Your task to perform on an android device: change keyboard looks Image 0: 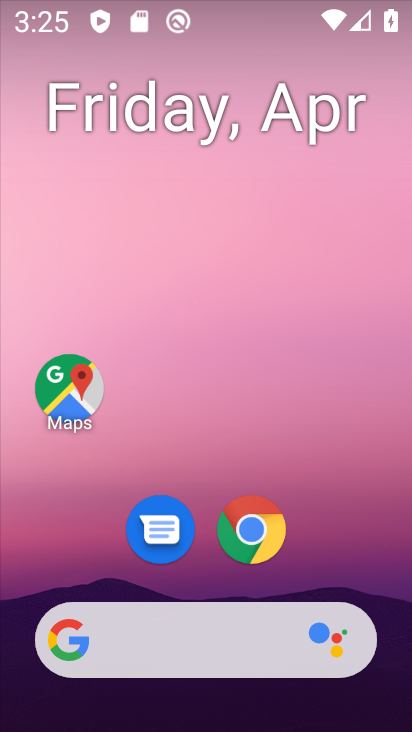
Step 0: drag from (321, 531) to (284, 37)
Your task to perform on an android device: change keyboard looks Image 1: 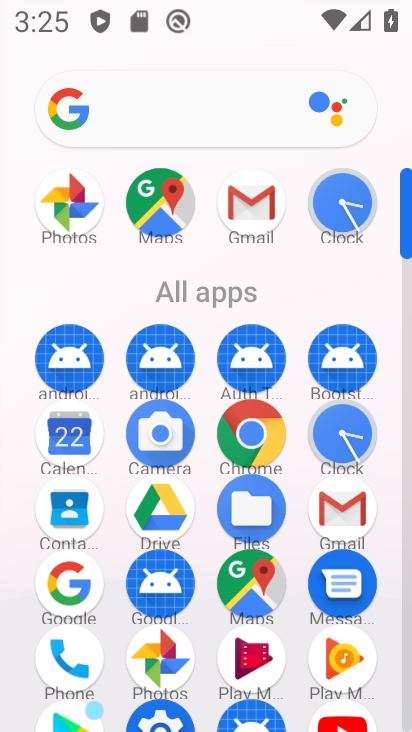
Step 1: drag from (220, 656) to (254, 319)
Your task to perform on an android device: change keyboard looks Image 2: 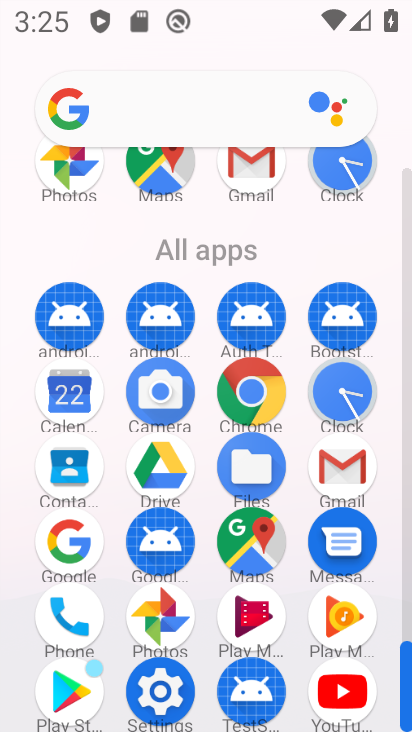
Step 2: click (159, 684)
Your task to perform on an android device: change keyboard looks Image 3: 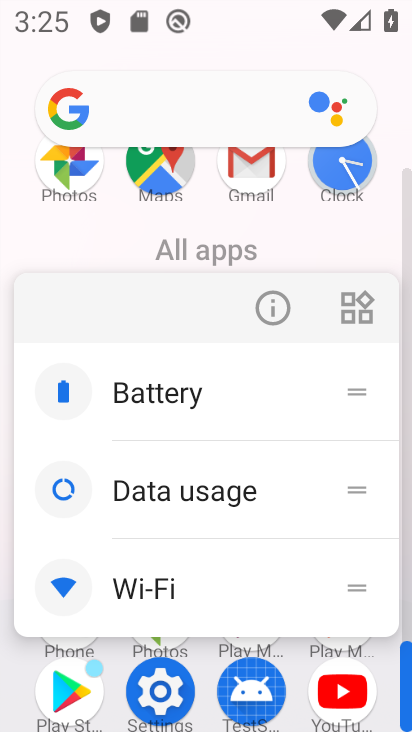
Step 3: click (154, 689)
Your task to perform on an android device: change keyboard looks Image 4: 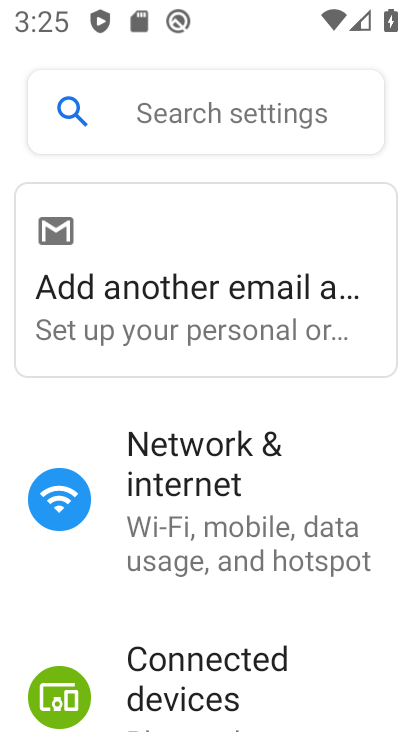
Step 4: drag from (268, 537) to (328, 70)
Your task to perform on an android device: change keyboard looks Image 5: 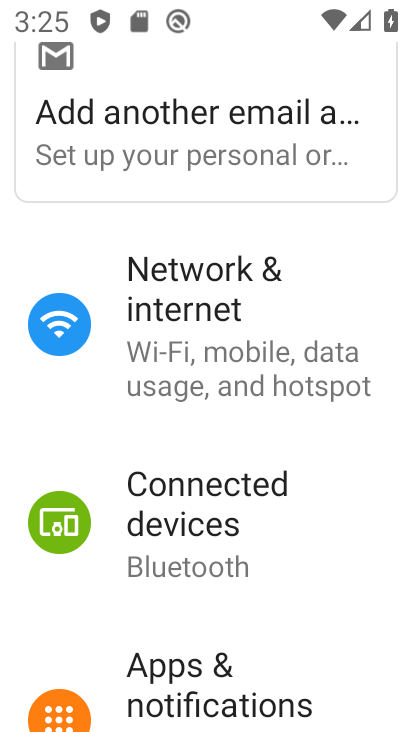
Step 5: drag from (278, 619) to (339, 139)
Your task to perform on an android device: change keyboard looks Image 6: 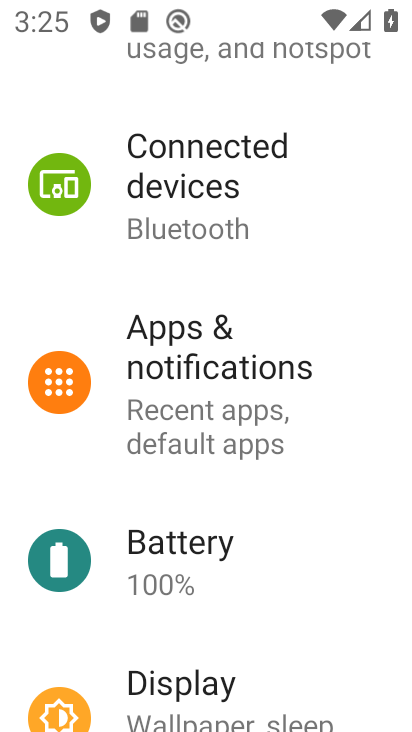
Step 6: drag from (255, 632) to (308, 219)
Your task to perform on an android device: change keyboard looks Image 7: 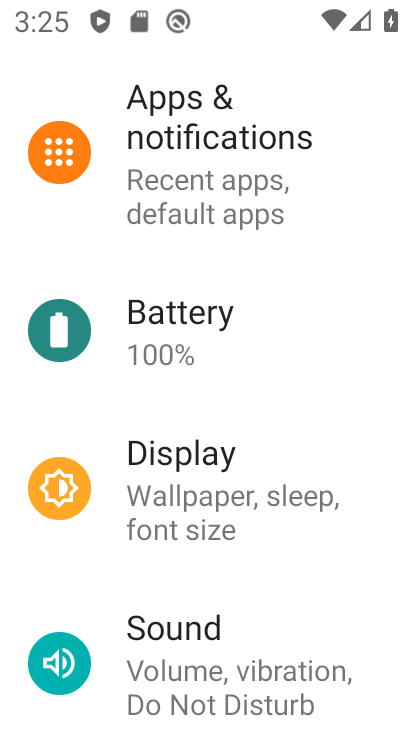
Step 7: drag from (303, 514) to (347, 154)
Your task to perform on an android device: change keyboard looks Image 8: 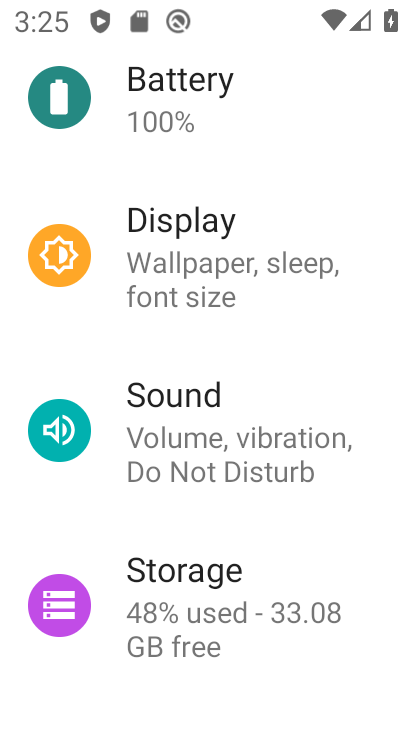
Step 8: drag from (275, 605) to (327, 168)
Your task to perform on an android device: change keyboard looks Image 9: 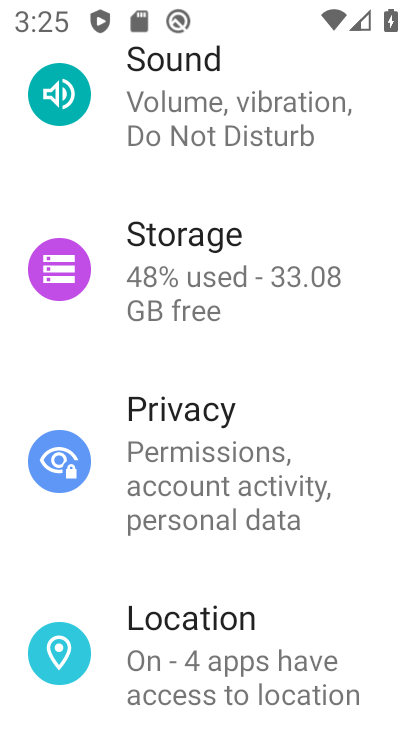
Step 9: drag from (270, 571) to (337, 164)
Your task to perform on an android device: change keyboard looks Image 10: 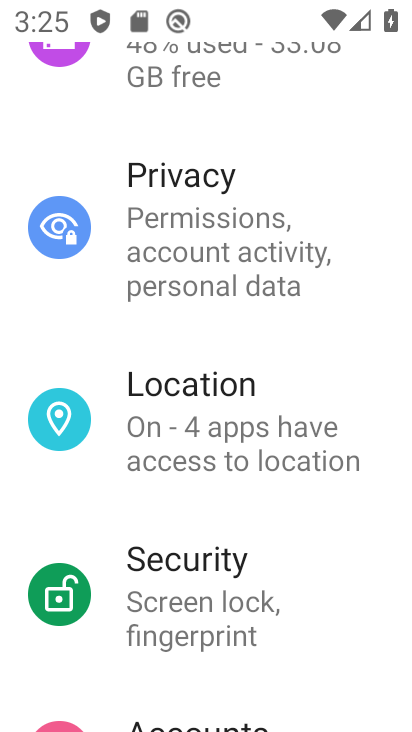
Step 10: drag from (242, 617) to (354, 140)
Your task to perform on an android device: change keyboard looks Image 11: 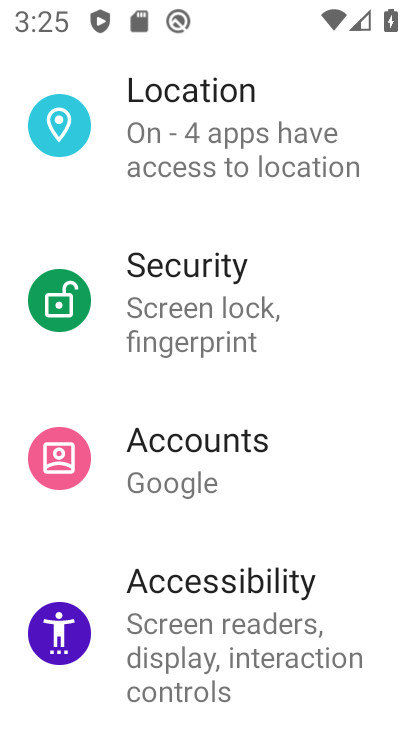
Step 11: drag from (225, 602) to (310, 178)
Your task to perform on an android device: change keyboard looks Image 12: 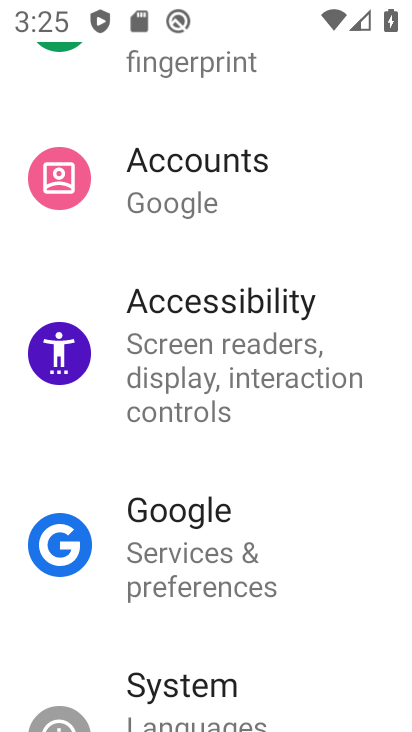
Step 12: drag from (263, 375) to (261, 158)
Your task to perform on an android device: change keyboard looks Image 13: 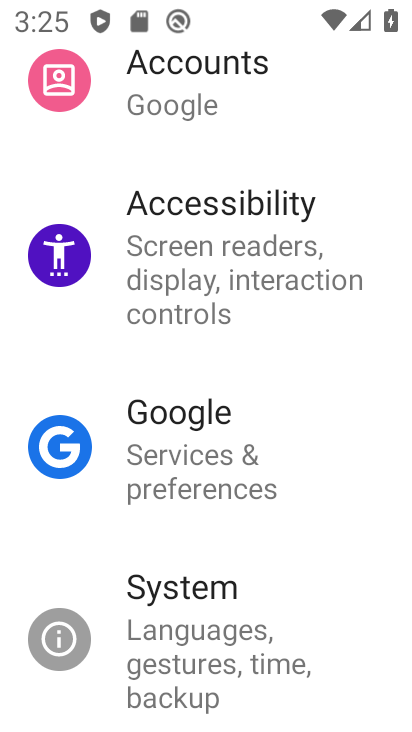
Step 13: click (215, 587)
Your task to perform on an android device: change keyboard looks Image 14: 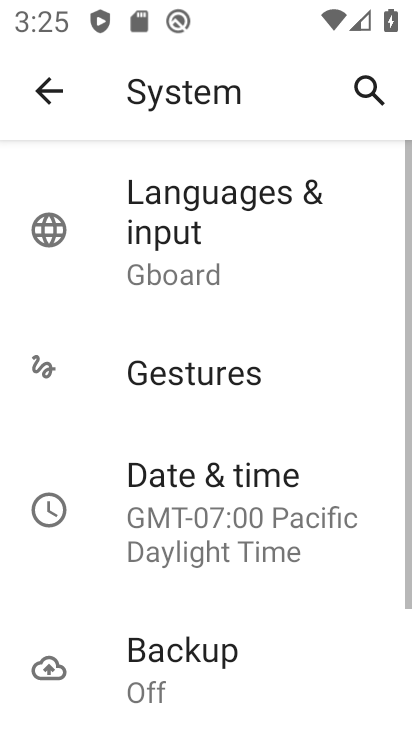
Step 14: click (179, 270)
Your task to perform on an android device: change keyboard looks Image 15: 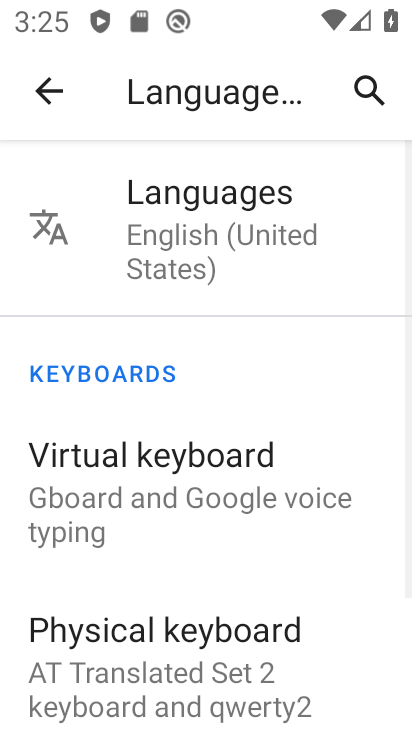
Step 15: click (147, 501)
Your task to perform on an android device: change keyboard looks Image 16: 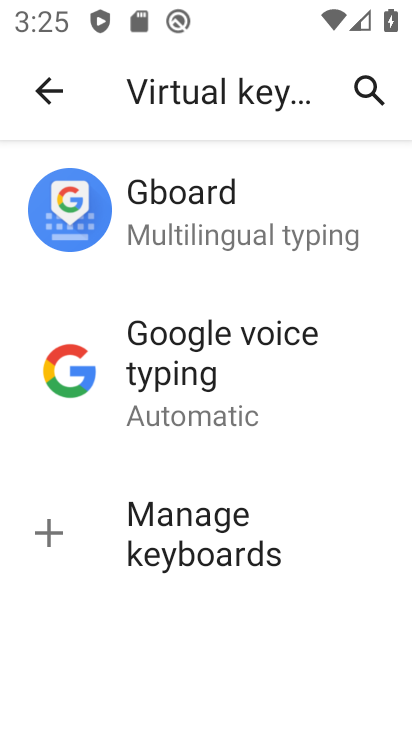
Step 16: click (254, 230)
Your task to perform on an android device: change keyboard looks Image 17: 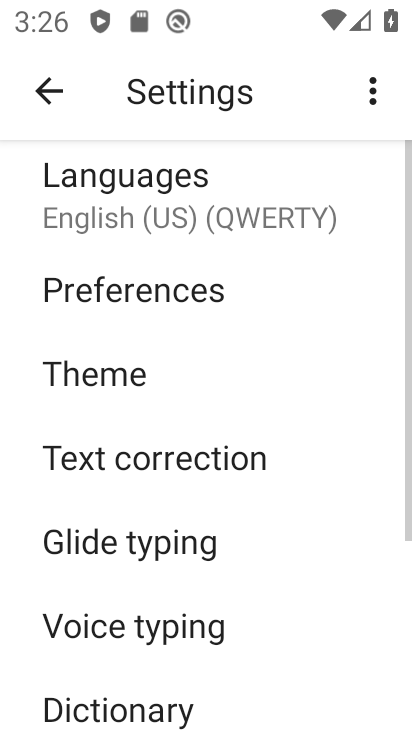
Step 17: click (138, 375)
Your task to perform on an android device: change keyboard looks Image 18: 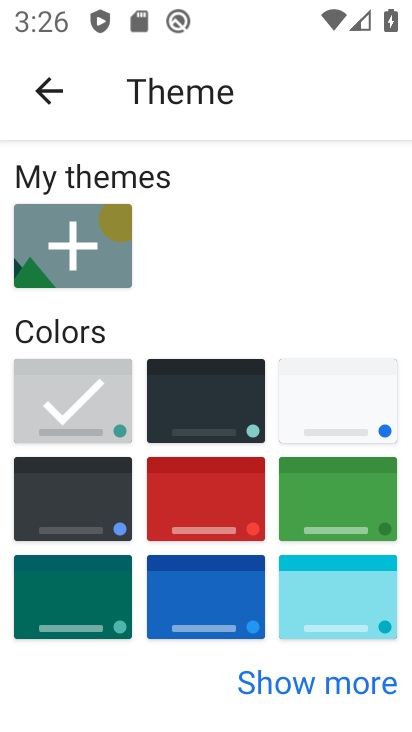
Step 18: click (175, 625)
Your task to perform on an android device: change keyboard looks Image 19: 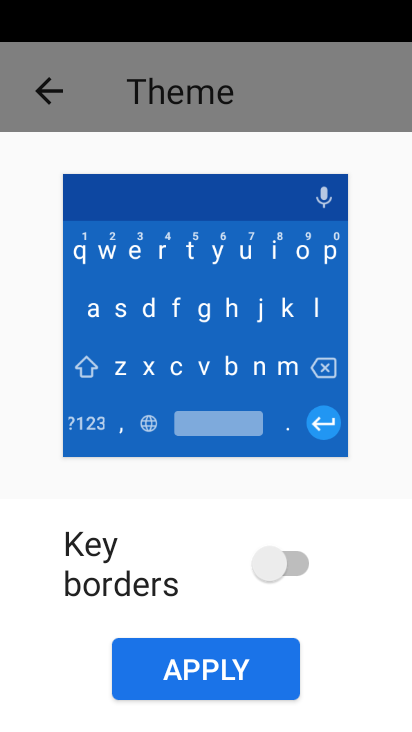
Step 19: click (250, 647)
Your task to perform on an android device: change keyboard looks Image 20: 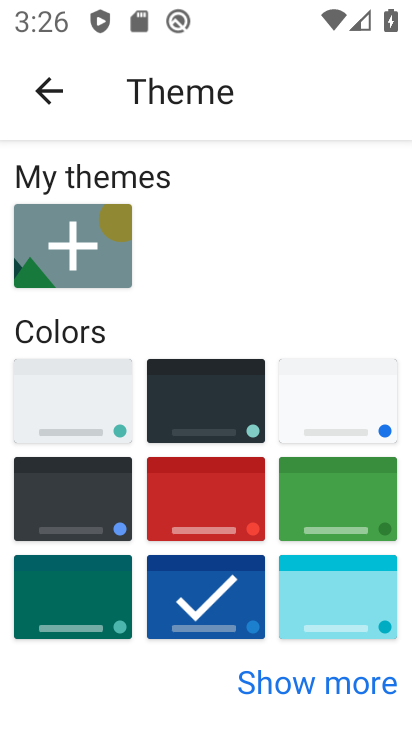
Step 20: task complete